Your task to perform on an android device: Open network settings Image 0: 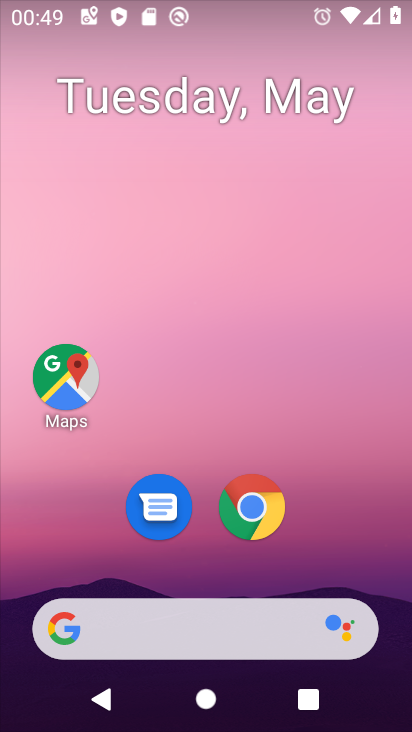
Step 0: drag from (201, 589) to (261, 212)
Your task to perform on an android device: Open network settings Image 1: 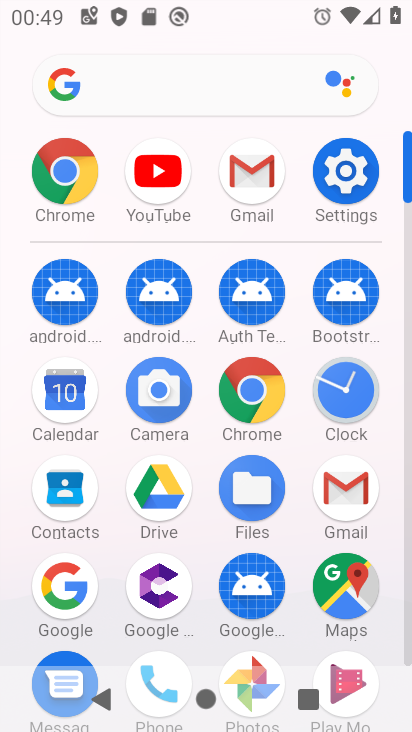
Step 1: click (354, 159)
Your task to perform on an android device: Open network settings Image 2: 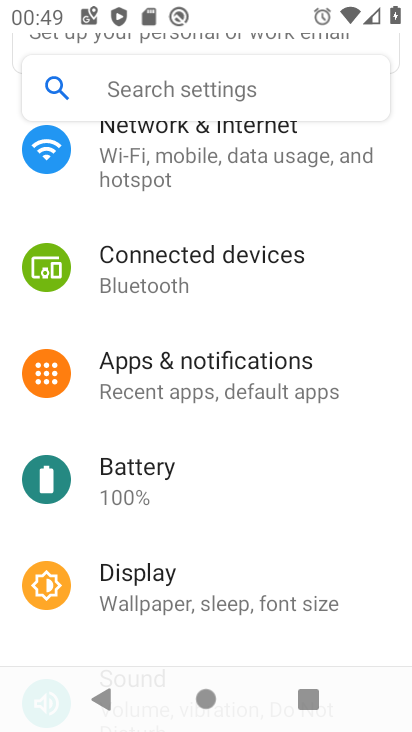
Step 2: click (178, 164)
Your task to perform on an android device: Open network settings Image 3: 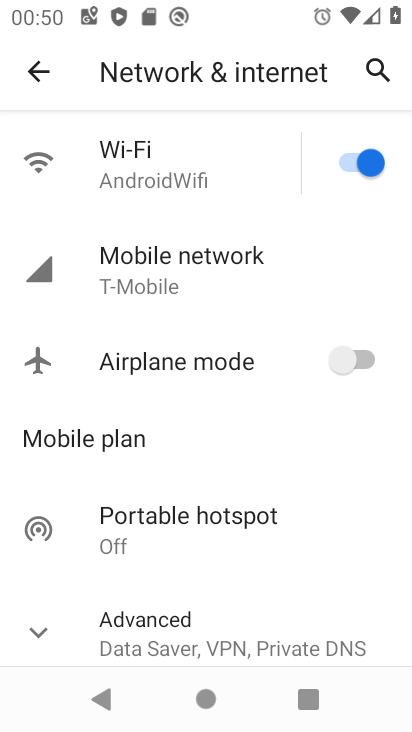
Step 3: click (201, 268)
Your task to perform on an android device: Open network settings Image 4: 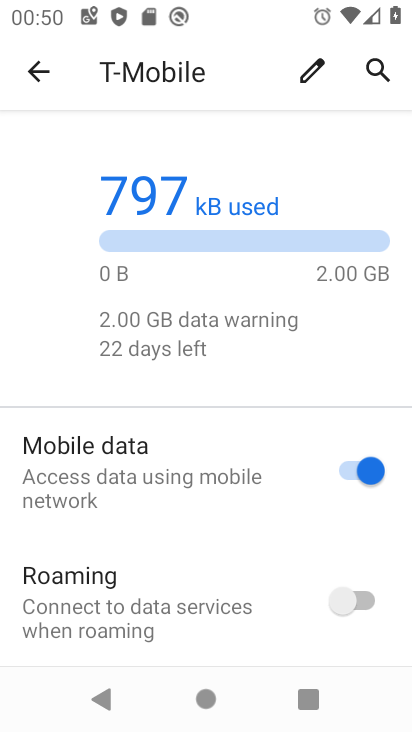
Step 4: drag from (160, 610) to (148, 255)
Your task to perform on an android device: Open network settings Image 5: 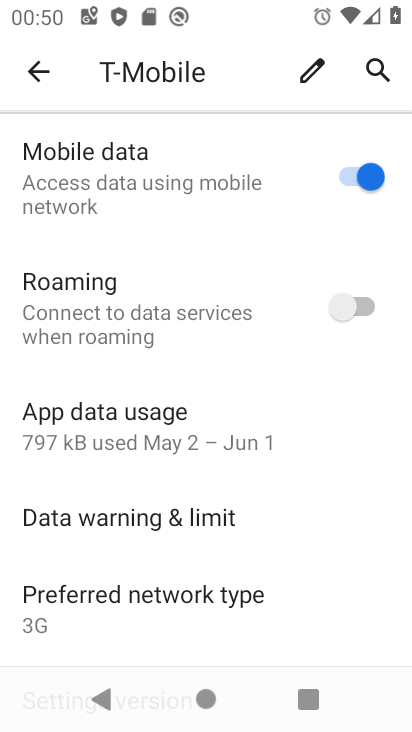
Step 5: drag from (176, 601) to (175, 255)
Your task to perform on an android device: Open network settings Image 6: 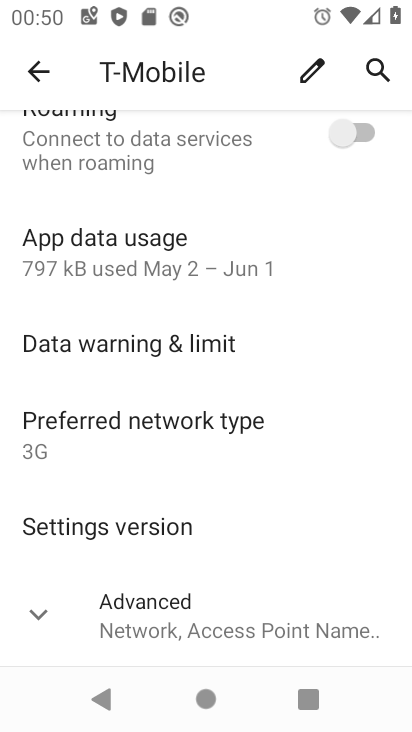
Step 6: click (182, 621)
Your task to perform on an android device: Open network settings Image 7: 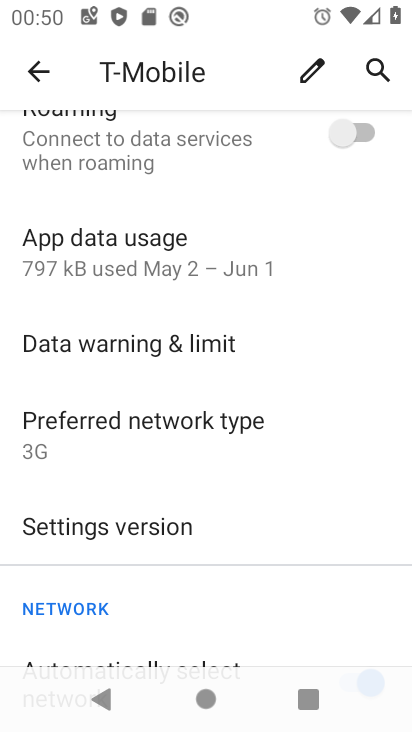
Step 7: task complete